Your task to perform on an android device: Is it going to rain this weekend? Image 0: 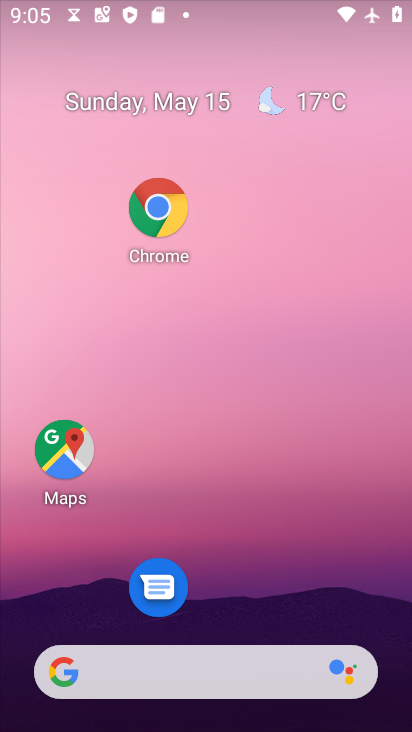
Step 0: drag from (379, 596) to (314, 237)
Your task to perform on an android device: Is it going to rain this weekend? Image 1: 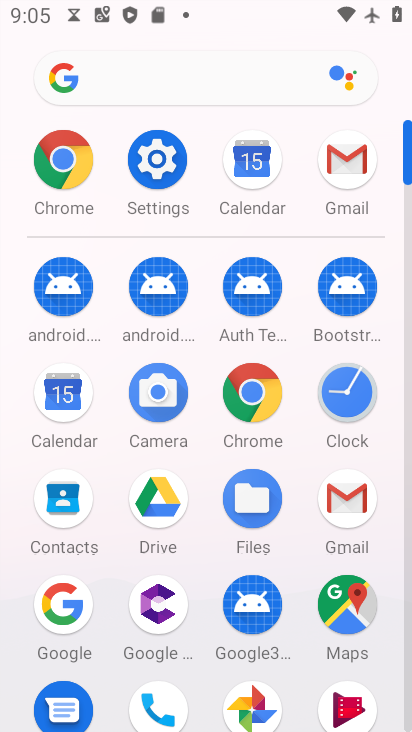
Step 1: press back button
Your task to perform on an android device: Is it going to rain this weekend? Image 2: 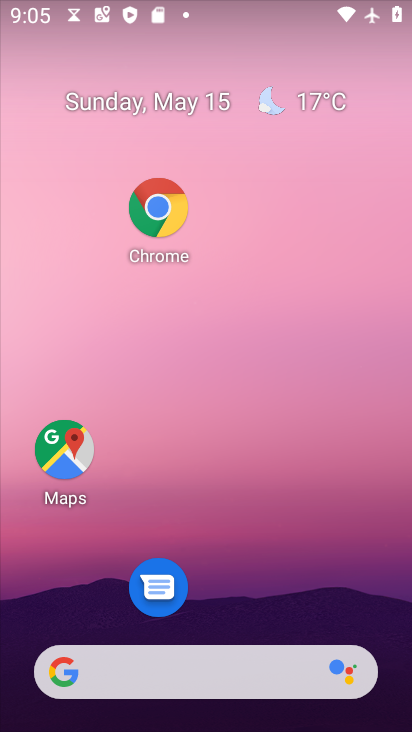
Step 2: drag from (10, 173) to (405, 304)
Your task to perform on an android device: Is it going to rain this weekend? Image 3: 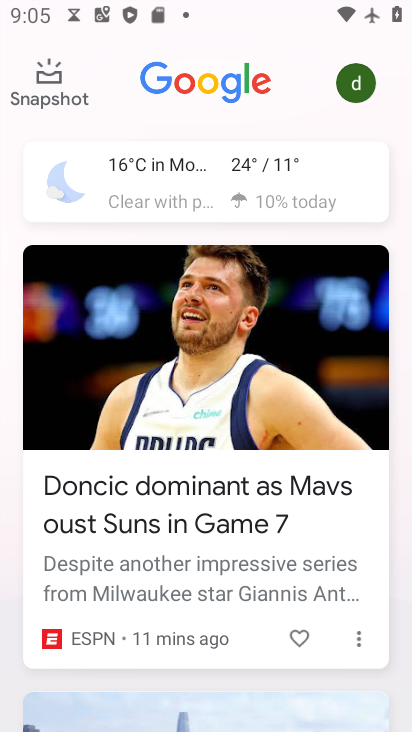
Step 3: click (159, 173)
Your task to perform on an android device: Is it going to rain this weekend? Image 4: 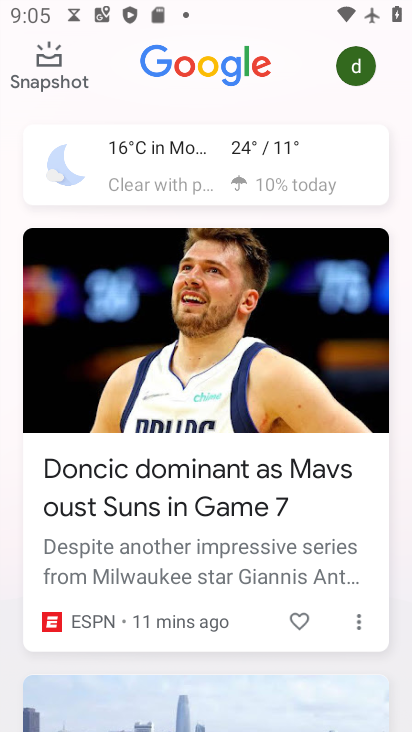
Step 4: click (164, 186)
Your task to perform on an android device: Is it going to rain this weekend? Image 5: 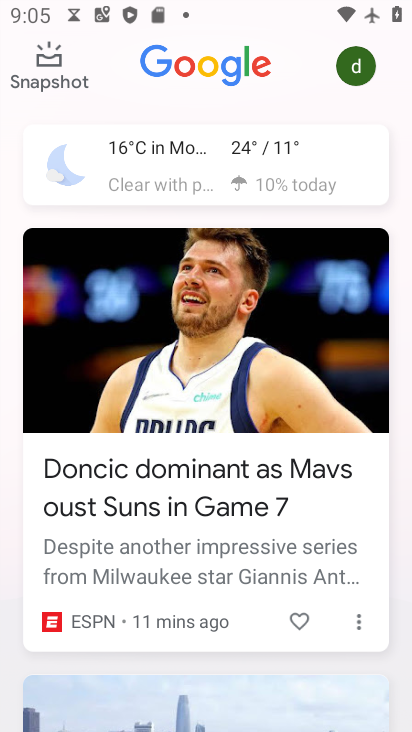
Step 5: click (165, 184)
Your task to perform on an android device: Is it going to rain this weekend? Image 6: 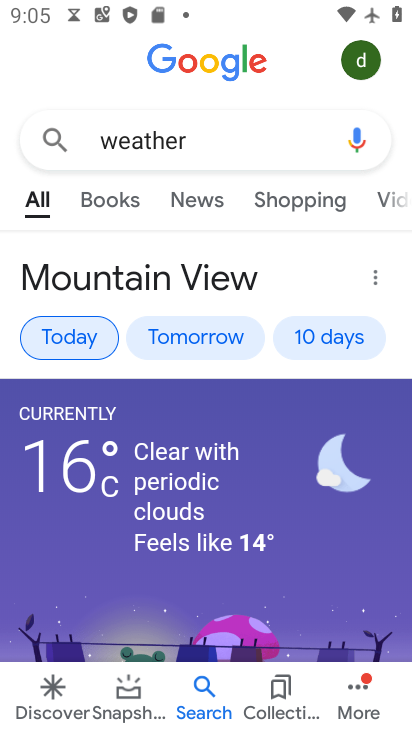
Step 6: task complete